Your task to perform on an android device: Open Google Maps Image 0: 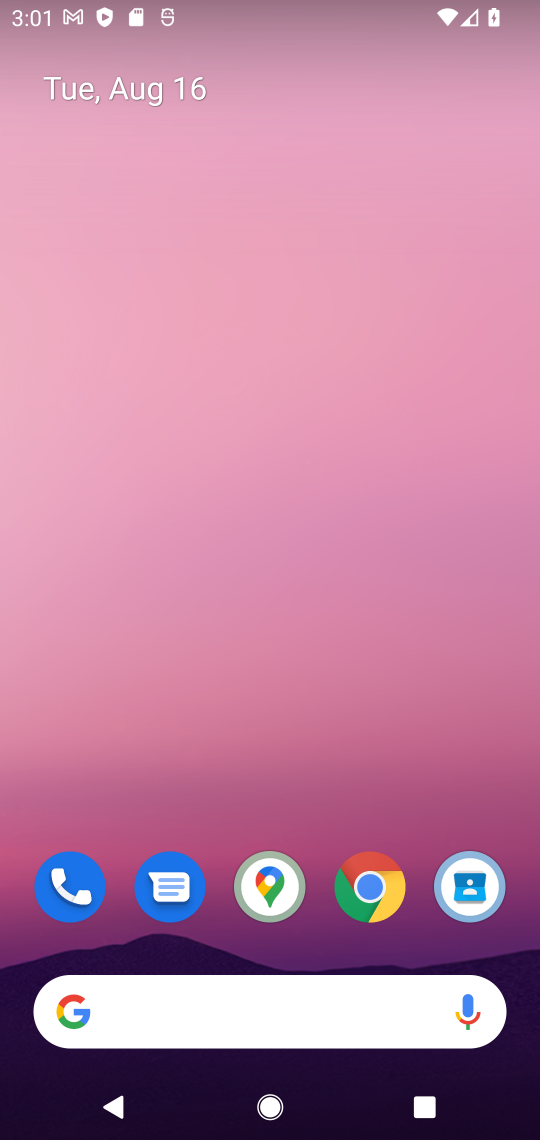
Step 0: drag from (298, 770) to (283, 0)
Your task to perform on an android device: Open Google Maps Image 1: 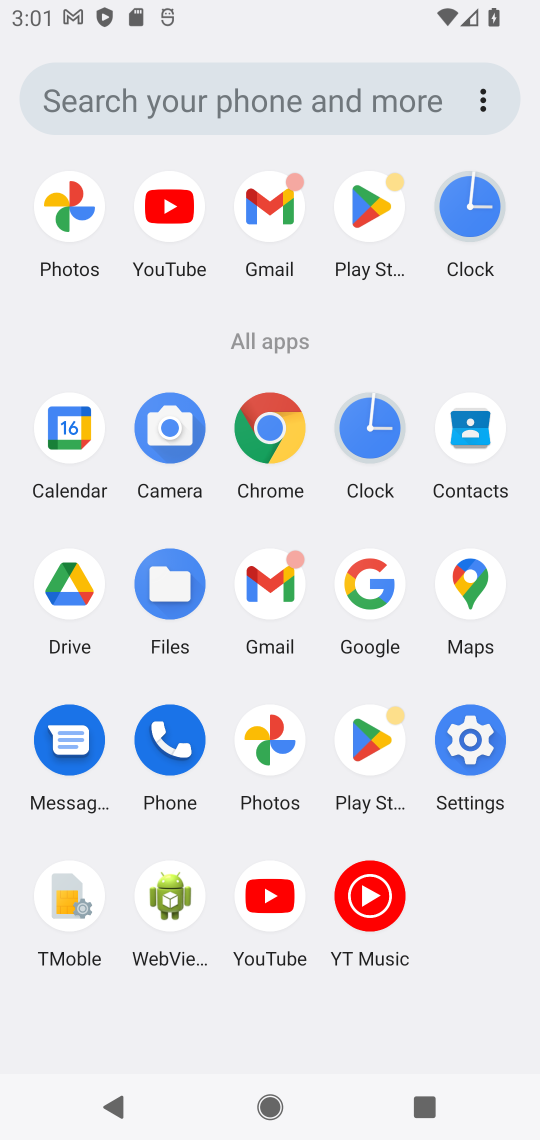
Step 1: click (462, 582)
Your task to perform on an android device: Open Google Maps Image 2: 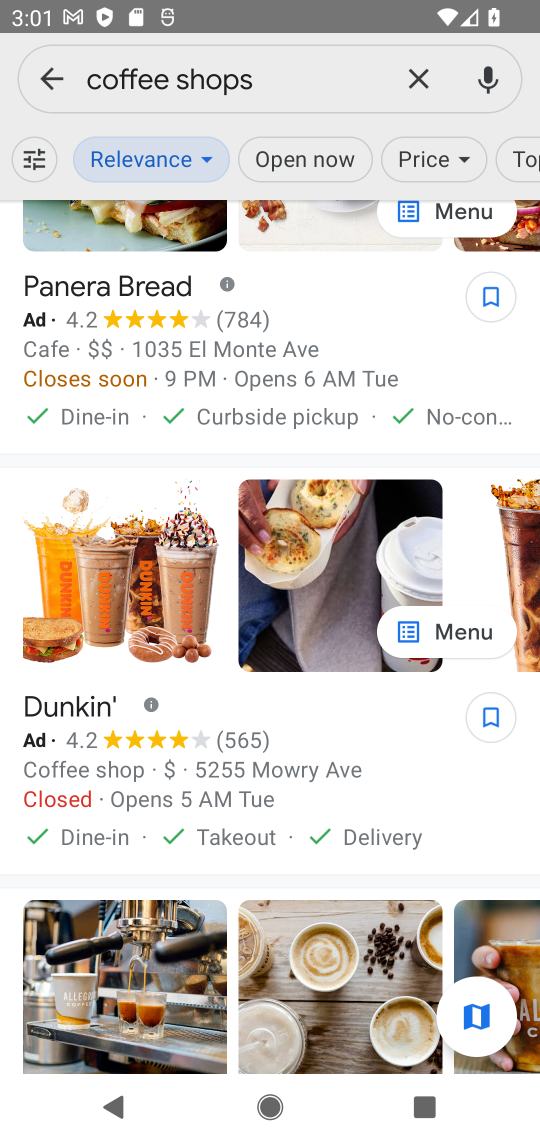
Step 2: task complete